Your task to perform on an android device: change the clock display to show seconds Image 0: 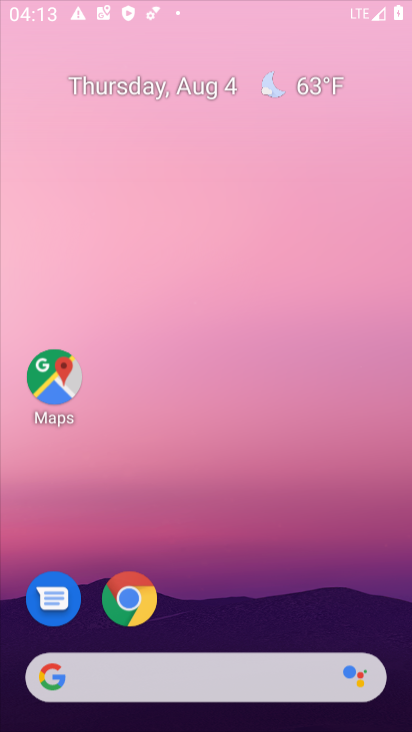
Step 0: drag from (282, 558) to (336, 95)
Your task to perform on an android device: change the clock display to show seconds Image 1: 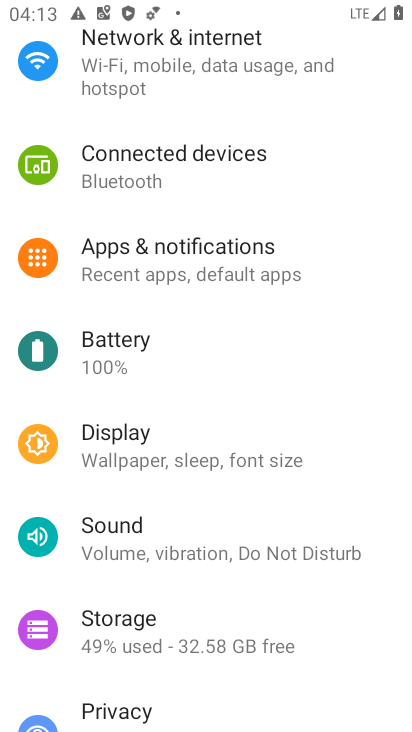
Step 1: press home button
Your task to perform on an android device: change the clock display to show seconds Image 2: 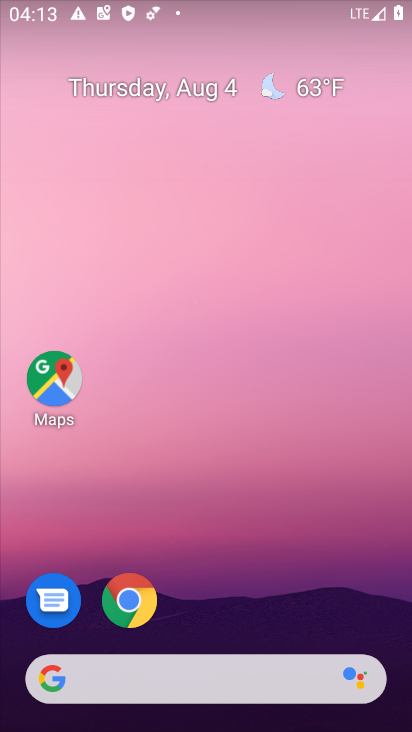
Step 2: drag from (338, 587) to (317, 113)
Your task to perform on an android device: change the clock display to show seconds Image 3: 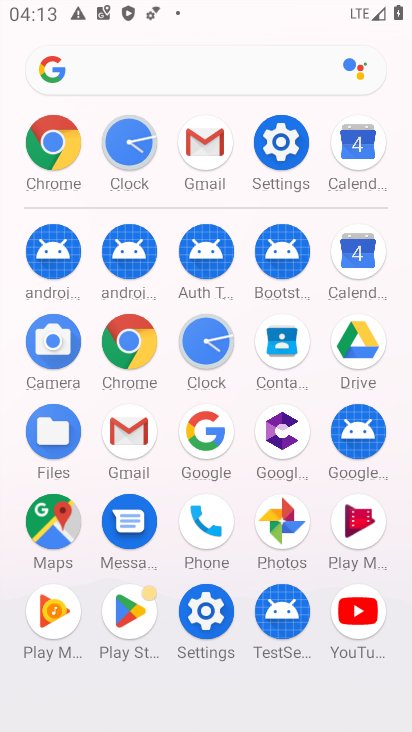
Step 3: click (215, 337)
Your task to perform on an android device: change the clock display to show seconds Image 4: 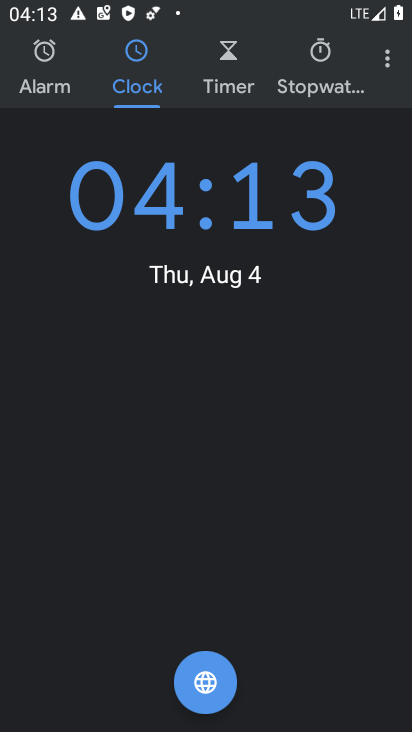
Step 4: click (380, 55)
Your task to perform on an android device: change the clock display to show seconds Image 5: 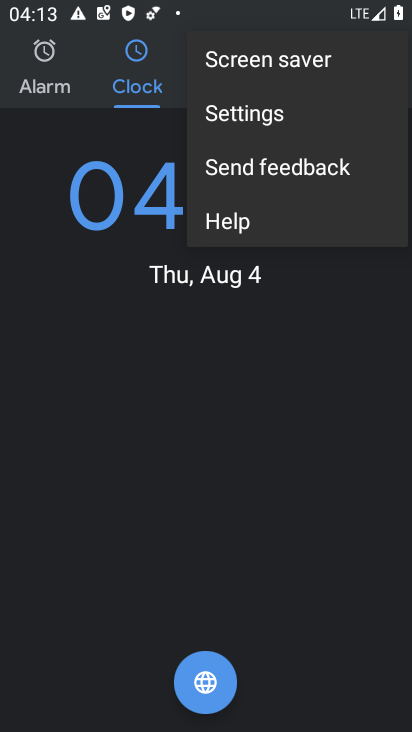
Step 5: click (268, 117)
Your task to perform on an android device: change the clock display to show seconds Image 6: 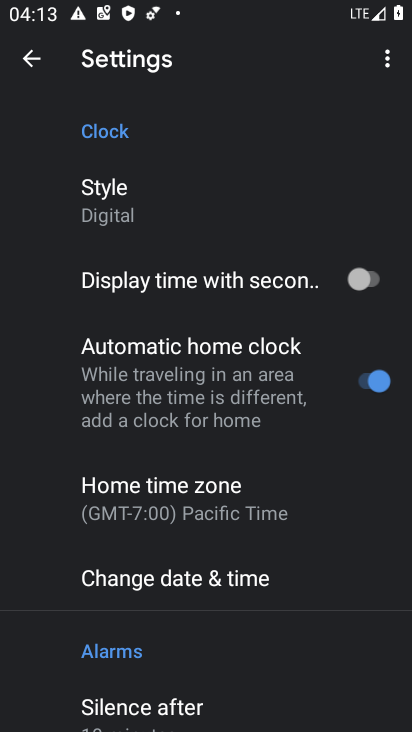
Step 6: click (352, 275)
Your task to perform on an android device: change the clock display to show seconds Image 7: 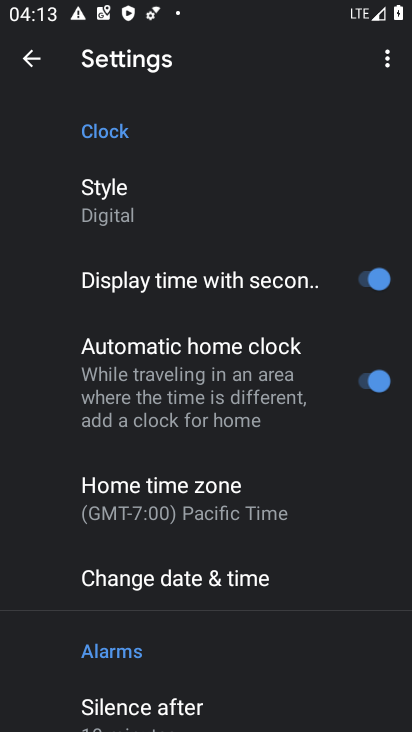
Step 7: task complete